Your task to perform on an android device: What's the weather? Image 0: 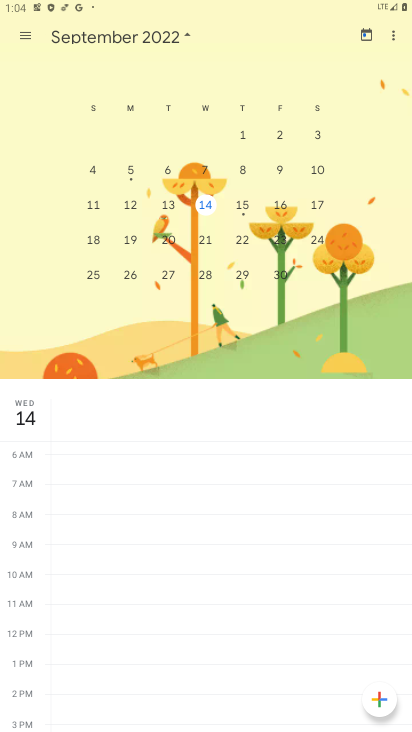
Step 0: press home button
Your task to perform on an android device: What's the weather? Image 1: 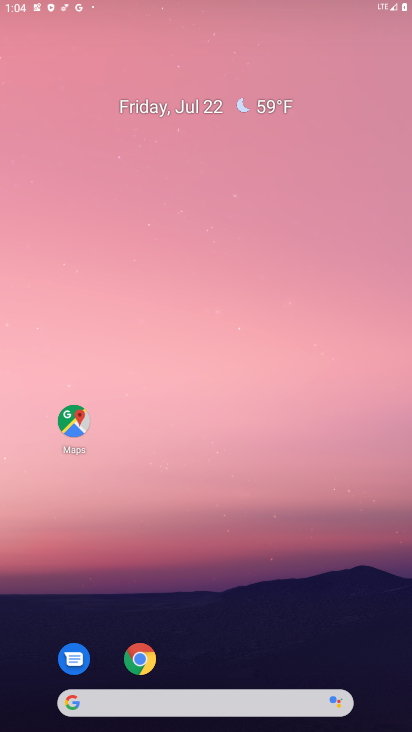
Step 1: drag from (328, 554) to (358, 0)
Your task to perform on an android device: What's the weather? Image 2: 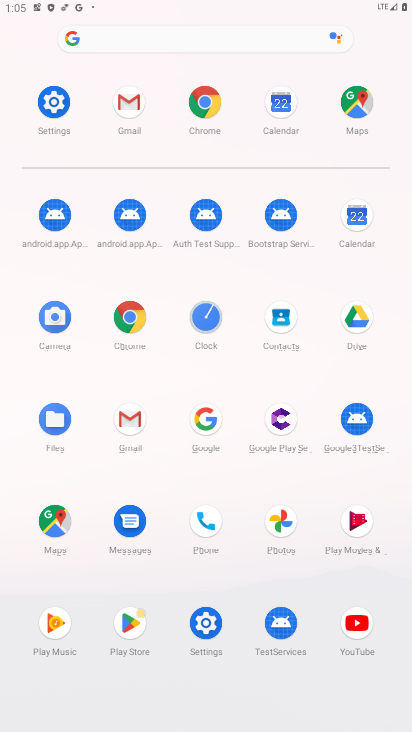
Step 2: click (216, 412)
Your task to perform on an android device: What's the weather? Image 3: 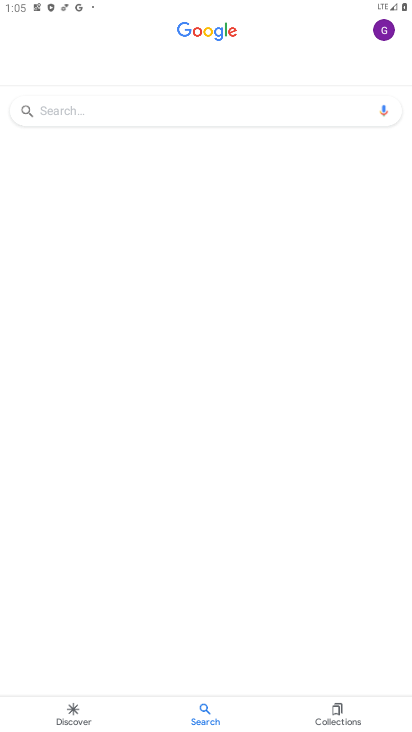
Step 3: click (194, 107)
Your task to perform on an android device: What's the weather? Image 4: 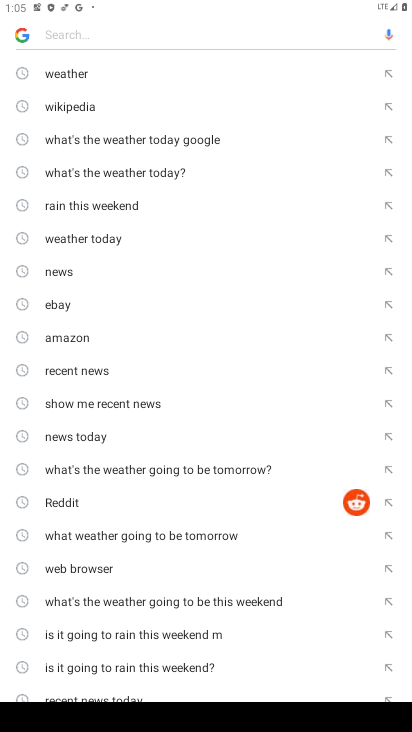
Step 4: type "weather?"
Your task to perform on an android device: What's the weather? Image 5: 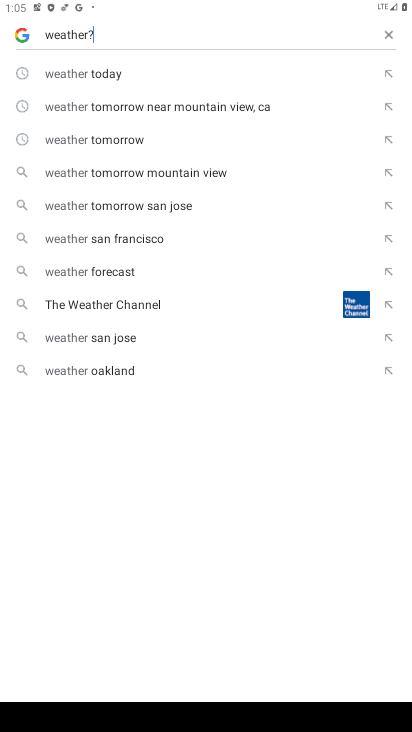
Step 5: press enter
Your task to perform on an android device: What's the weather? Image 6: 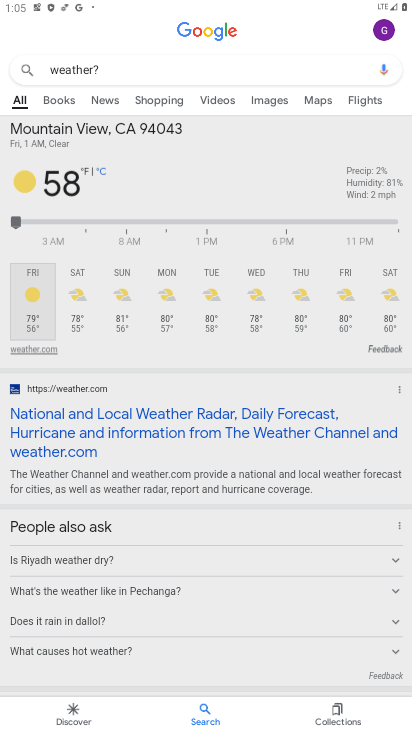
Step 6: task complete